Your task to perform on an android device: turn off airplane mode Image 0: 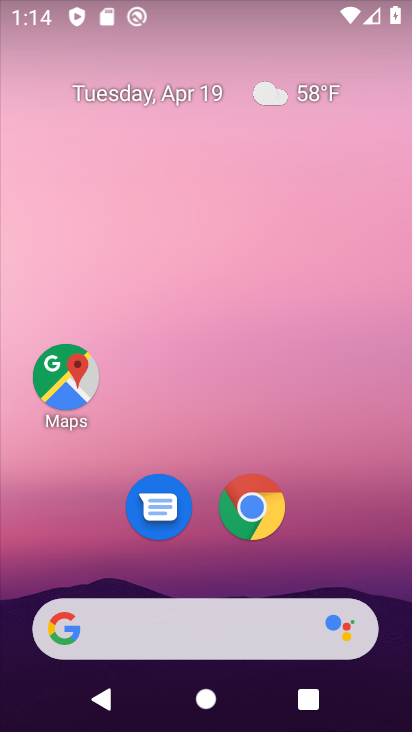
Step 0: drag from (204, 539) to (188, 161)
Your task to perform on an android device: turn off airplane mode Image 1: 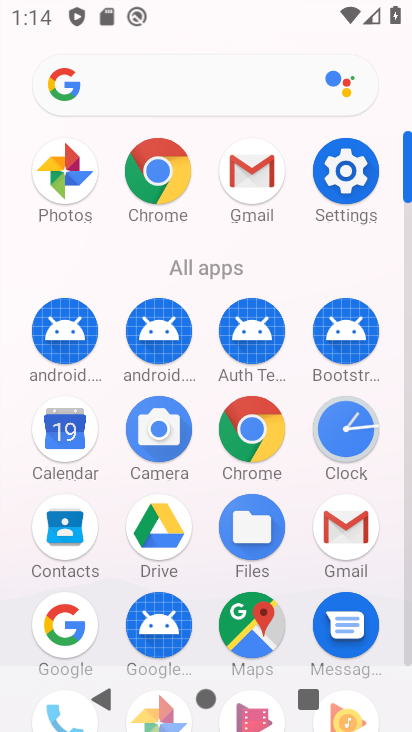
Step 1: click (346, 166)
Your task to perform on an android device: turn off airplane mode Image 2: 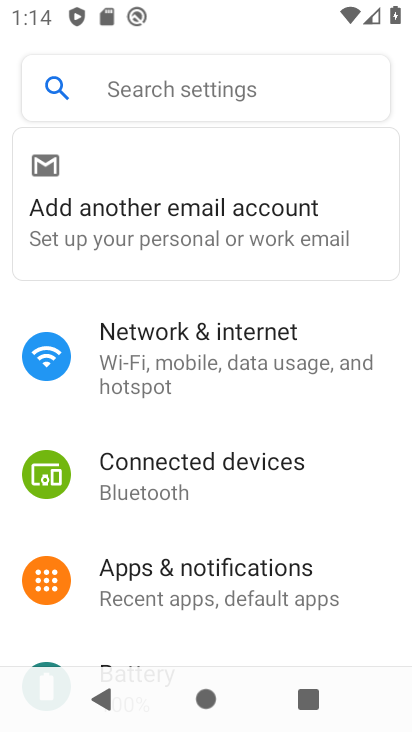
Step 2: click (180, 333)
Your task to perform on an android device: turn off airplane mode Image 3: 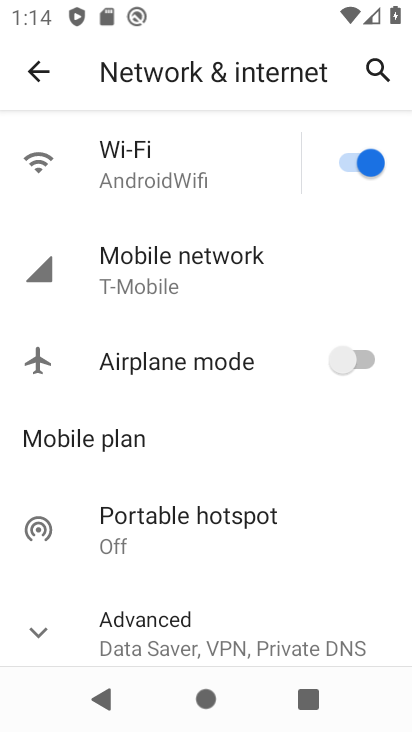
Step 3: task complete